Your task to perform on an android device: Open Google Maps Image 0: 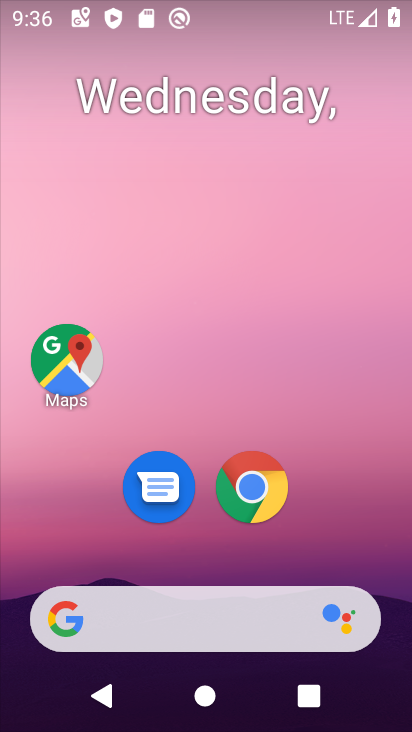
Step 0: click (62, 371)
Your task to perform on an android device: Open Google Maps Image 1: 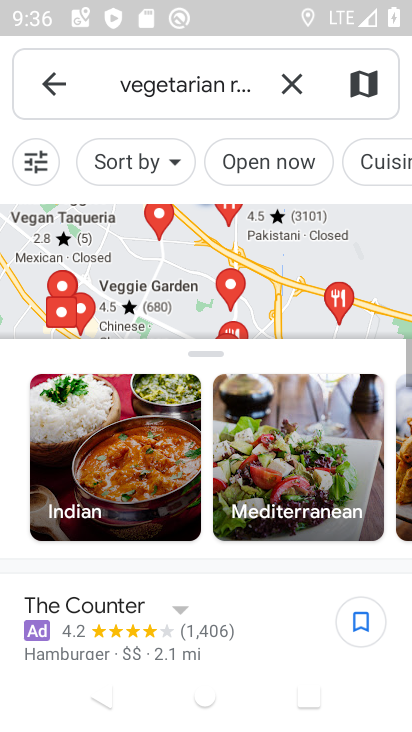
Step 1: click (290, 90)
Your task to perform on an android device: Open Google Maps Image 2: 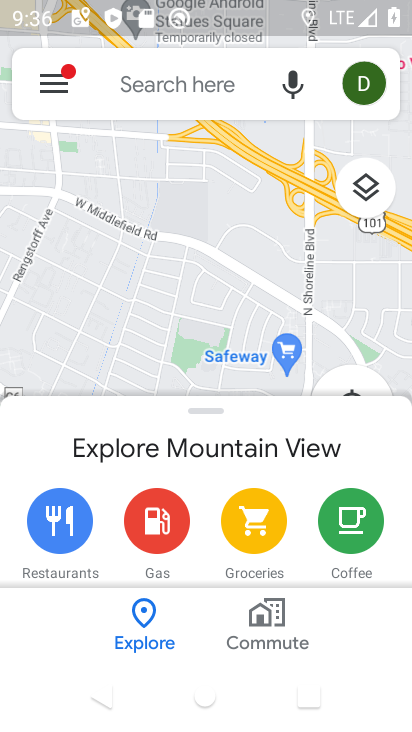
Step 2: task complete